Your task to perform on an android device: Open privacy settings Image 0: 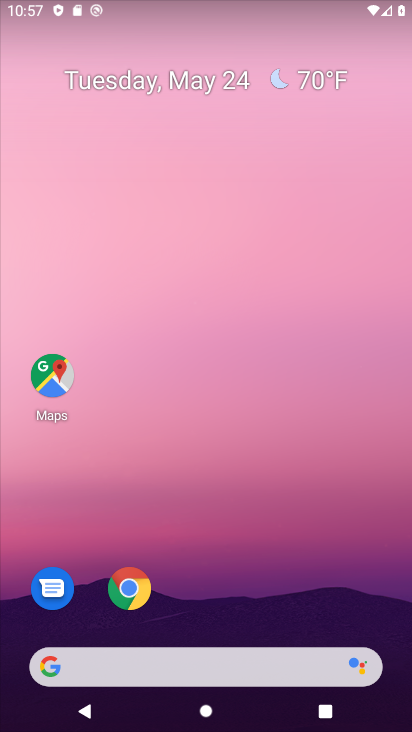
Step 0: press home button
Your task to perform on an android device: Open privacy settings Image 1: 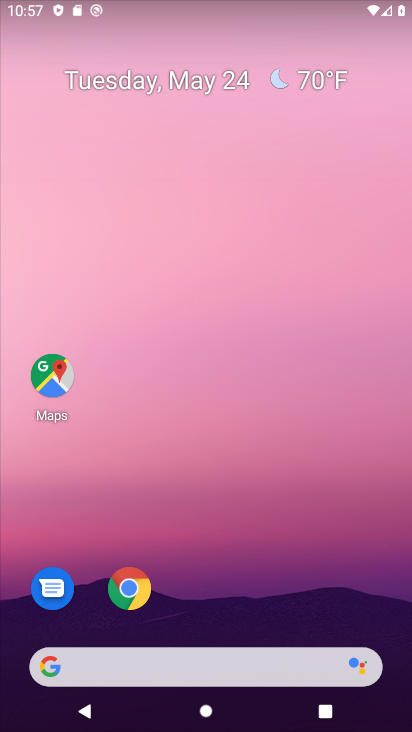
Step 1: drag from (213, 629) to (231, 57)
Your task to perform on an android device: Open privacy settings Image 2: 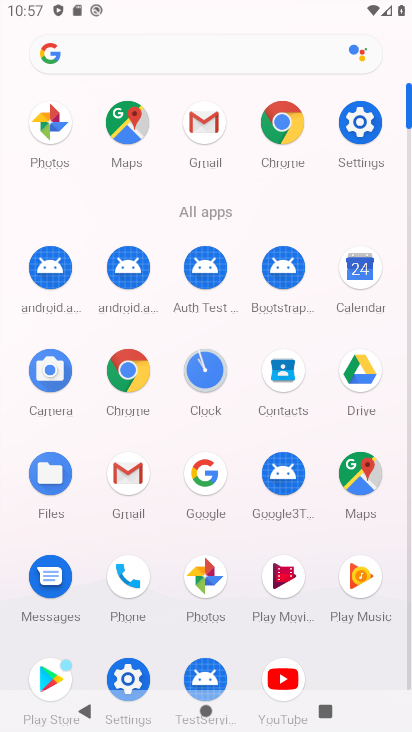
Step 2: click (357, 127)
Your task to perform on an android device: Open privacy settings Image 3: 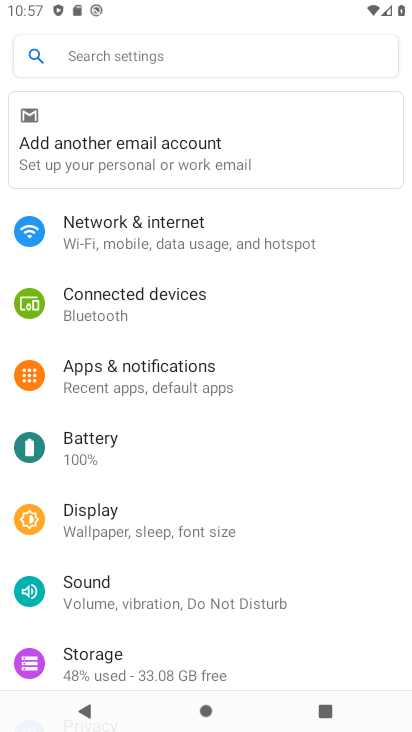
Step 3: drag from (159, 649) to (212, 194)
Your task to perform on an android device: Open privacy settings Image 4: 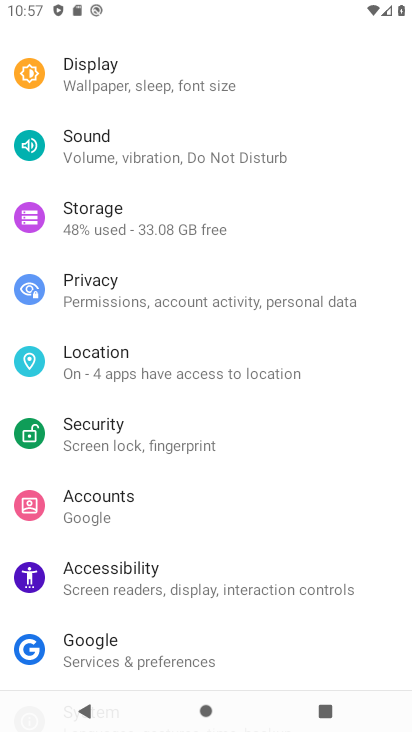
Step 4: click (154, 291)
Your task to perform on an android device: Open privacy settings Image 5: 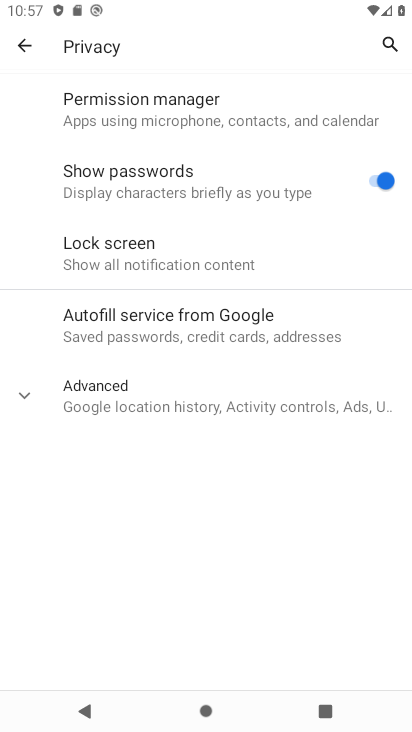
Step 5: click (34, 395)
Your task to perform on an android device: Open privacy settings Image 6: 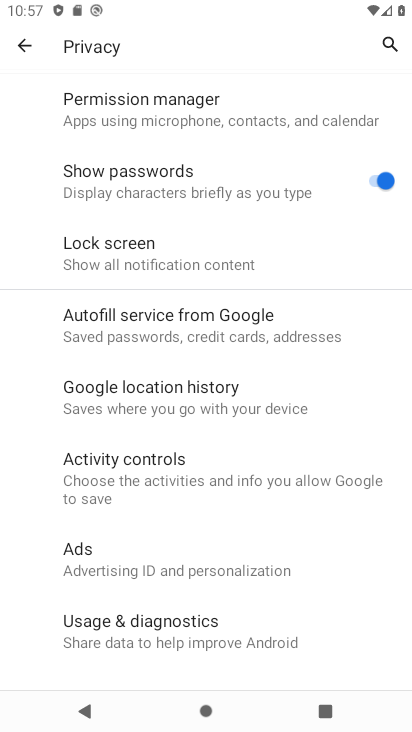
Step 6: task complete